Your task to perform on an android device: Search for pizza restaurants on Maps Image 0: 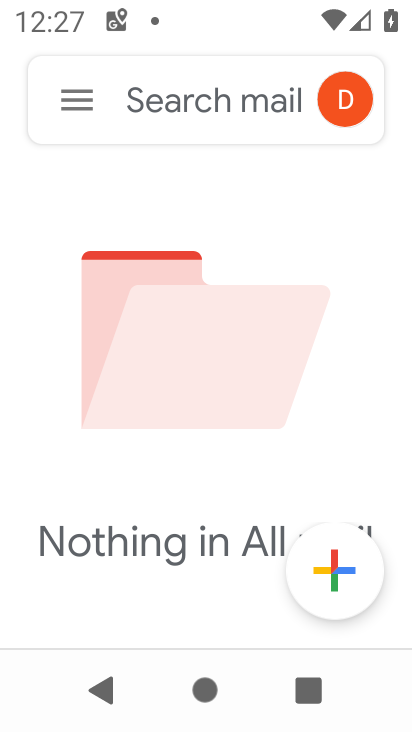
Step 0: press back button
Your task to perform on an android device: Search for pizza restaurants on Maps Image 1: 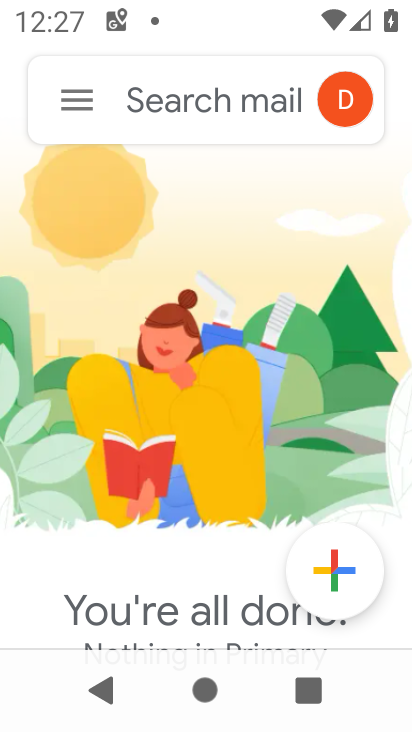
Step 1: press back button
Your task to perform on an android device: Search for pizza restaurants on Maps Image 2: 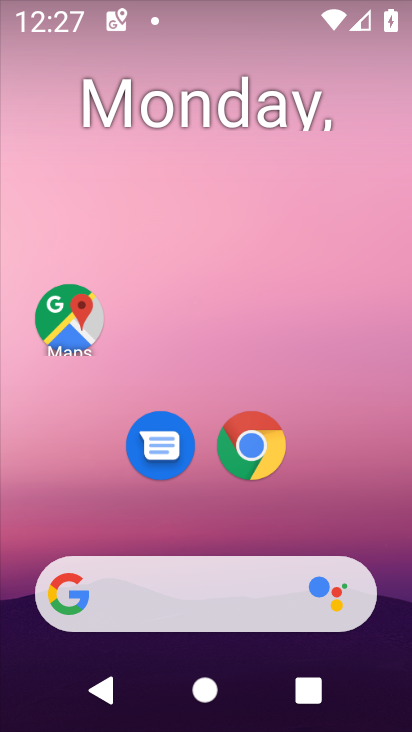
Step 2: click (72, 319)
Your task to perform on an android device: Search for pizza restaurants on Maps Image 3: 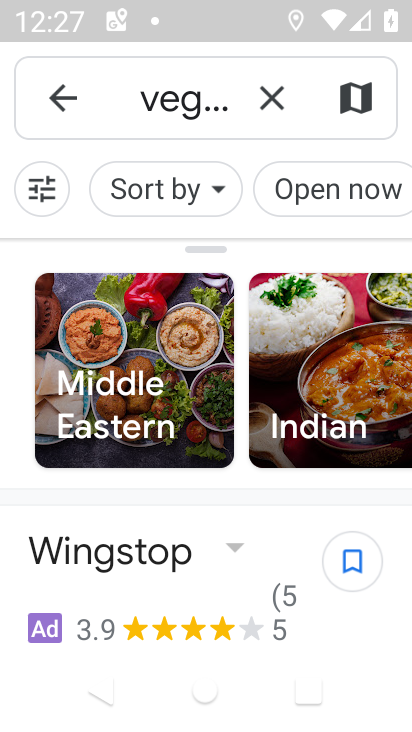
Step 3: click (274, 99)
Your task to perform on an android device: Search for pizza restaurants on Maps Image 4: 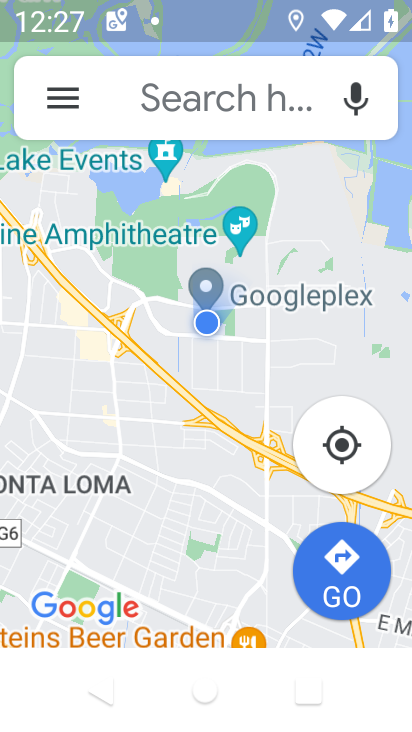
Step 4: click (205, 109)
Your task to perform on an android device: Search for pizza restaurants on Maps Image 5: 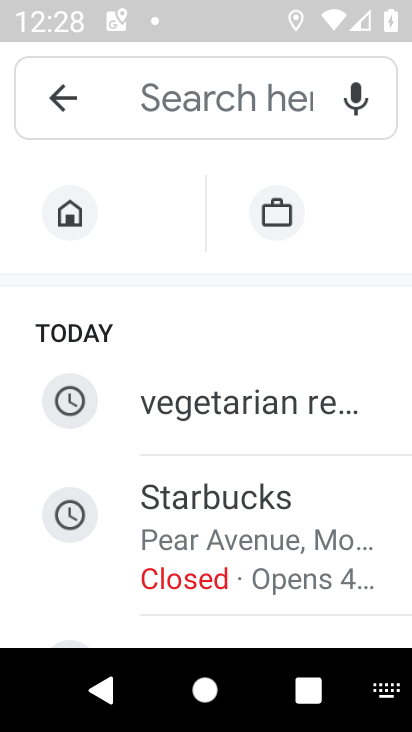
Step 5: type "pizza restaurants"
Your task to perform on an android device: Search for pizza restaurants on Maps Image 6: 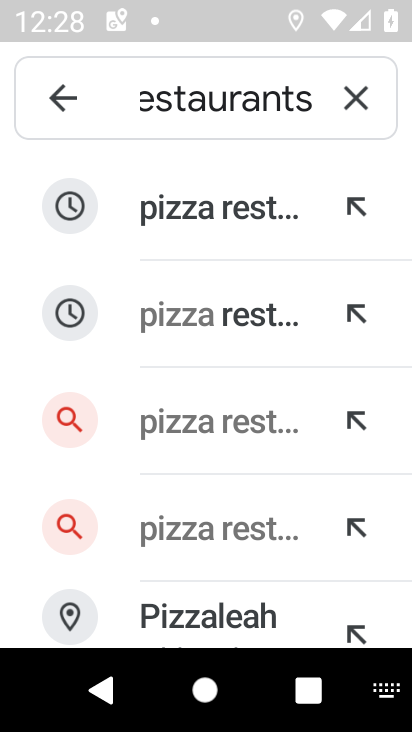
Step 6: click (220, 208)
Your task to perform on an android device: Search for pizza restaurants on Maps Image 7: 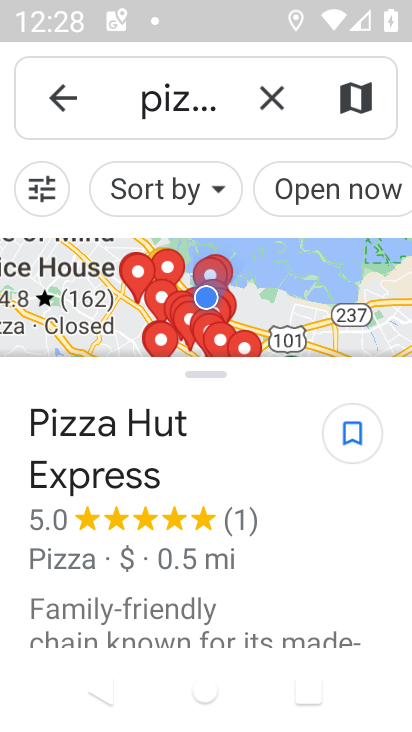
Step 7: task complete